Your task to perform on an android device: Open Chrome and go to the settings page Image 0: 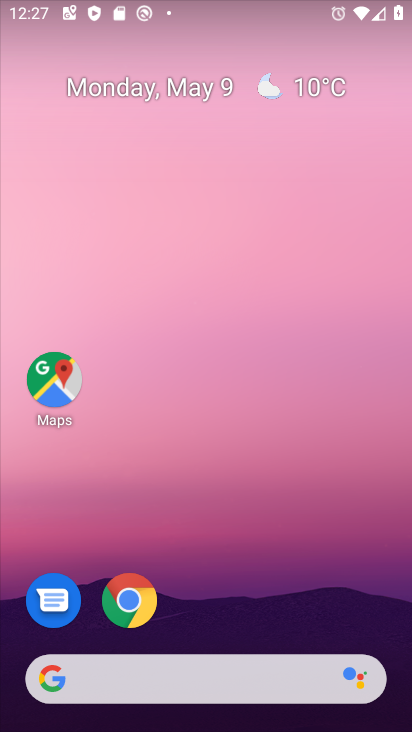
Step 0: click (128, 590)
Your task to perform on an android device: Open Chrome and go to the settings page Image 1: 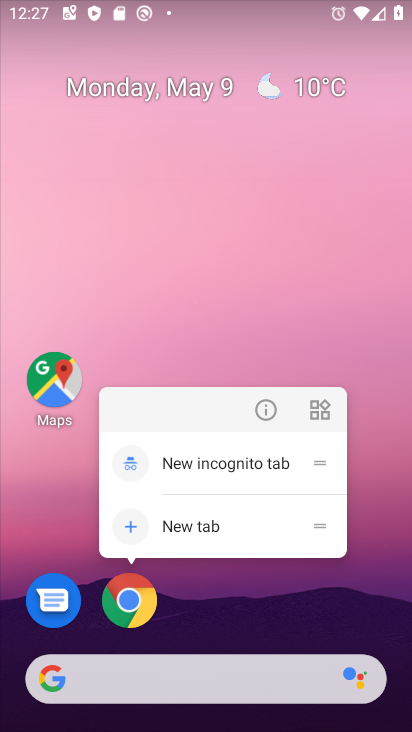
Step 1: click (134, 606)
Your task to perform on an android device: Open Chrome and go to the settings page Image 2: 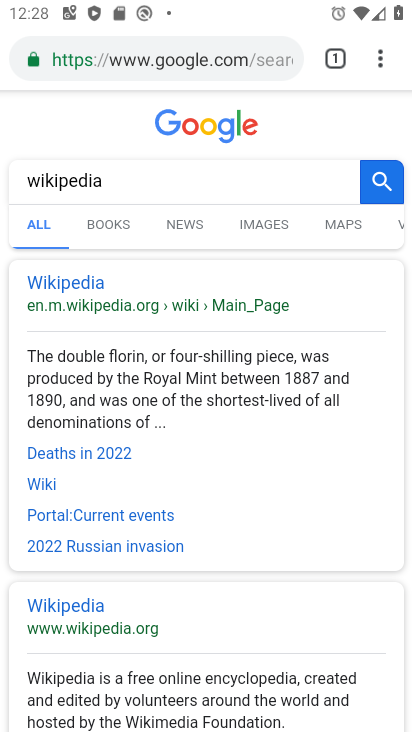
Step 2: click (385, 57)
Your task to perform on an android device: Open Chrome and go to the settings page Image 3: 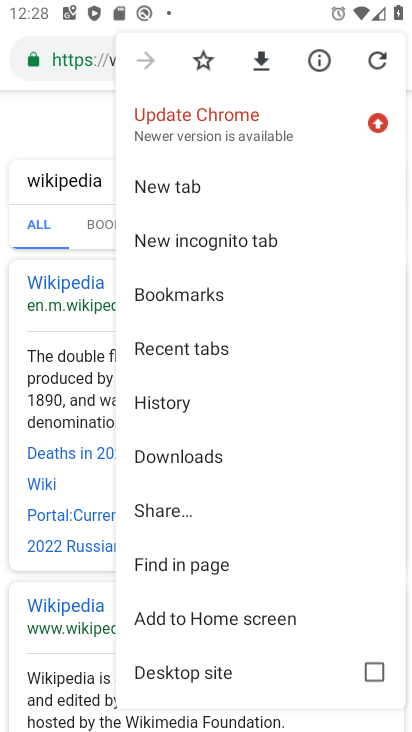
Step 3: drag from (220, 456) to (267, 222)
Your task to perform on an android device: Open Chrome and go to the settings page Image 4: 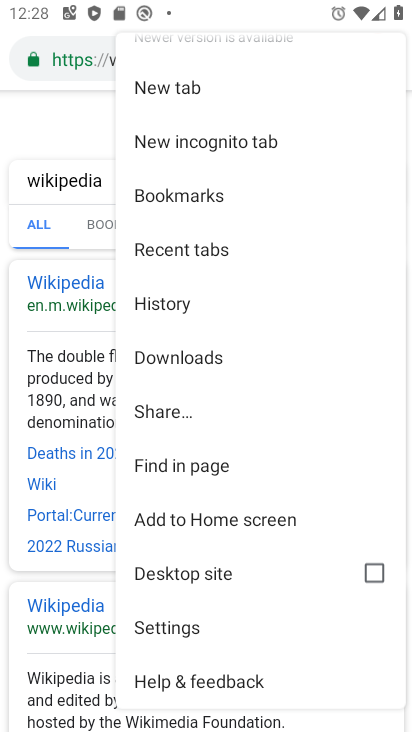
Step 4: click (147, 624)
Your task to perform on an android device: Open Chrome and go to the settings page Image 5: 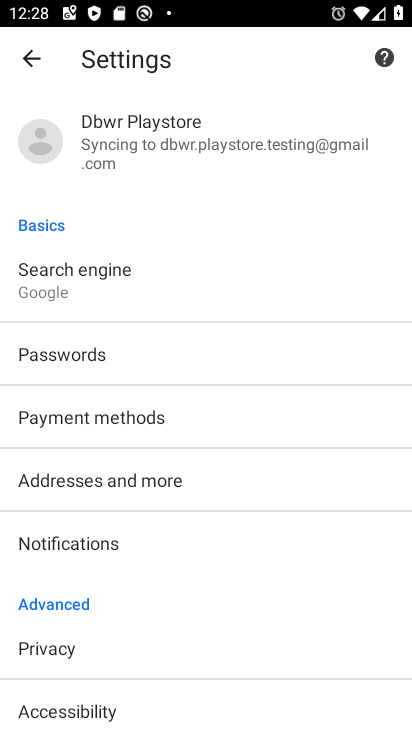
Step 5: task complete